Your task to perform on an android device: toggle airplane mode Image 0: 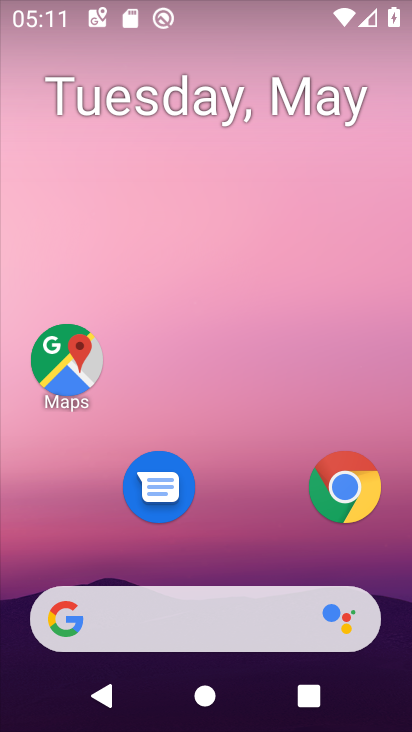
Step 0: drag from (246, 556) to (257, 136)
Your task to perform on an android device: toggle airplane mode Image 1: 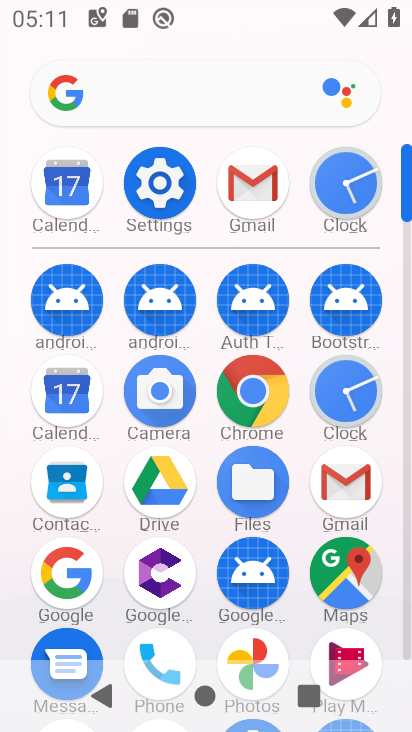
Step 1: click (163, 199)
Your task to perform on an android device: toggle airplane mode Image 2: 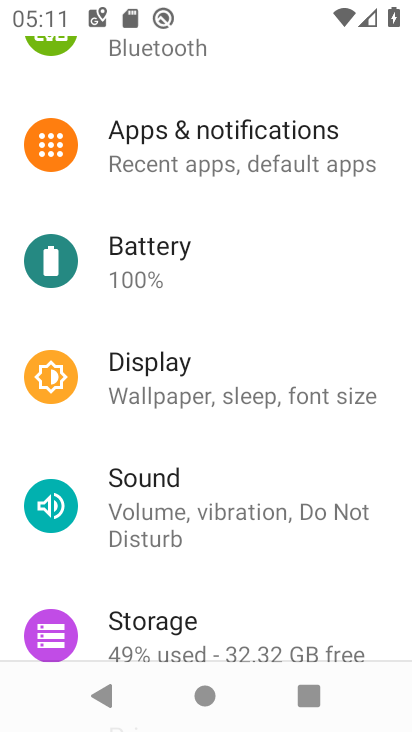
Step 2: drag from (173, 224) to (180, 586)
Your task to perform on an android device: toggle airplane mode Image 3: 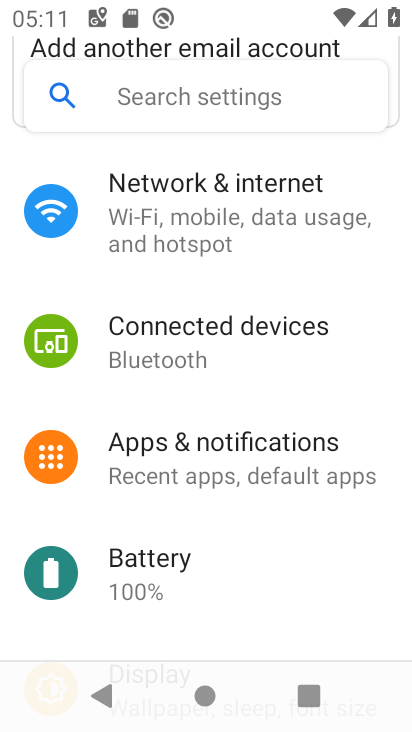
Step 3: click (216, 247)
Your task to perform on an android device: toggle airplane mode Image 4: 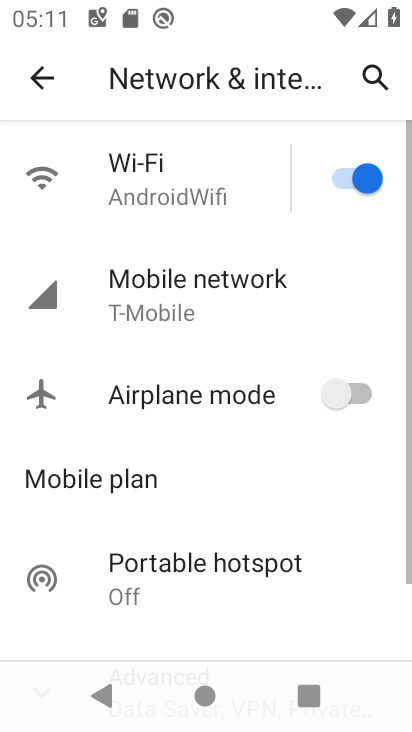
Step 4: click (303, 380)
Your task to perform on an android device: toggle airplane mode Image 5: 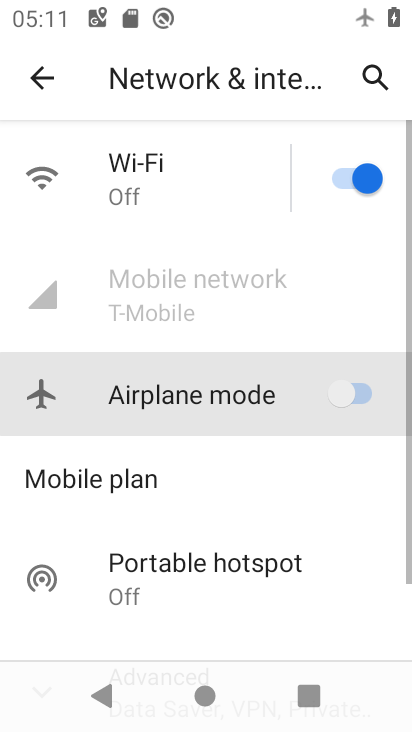
Step 5: click (303, 380)
Your task to perform on an android device: toggle airplane mode Image 6: 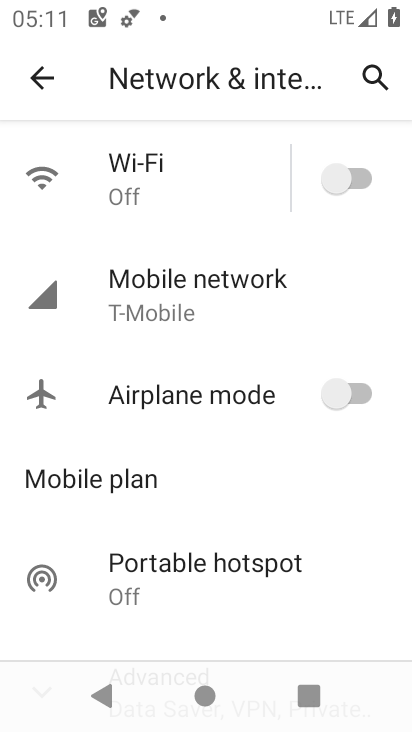
Step 6: click (352, 173)
Your task to perform on an android device: toggle airplane mode Image 7: 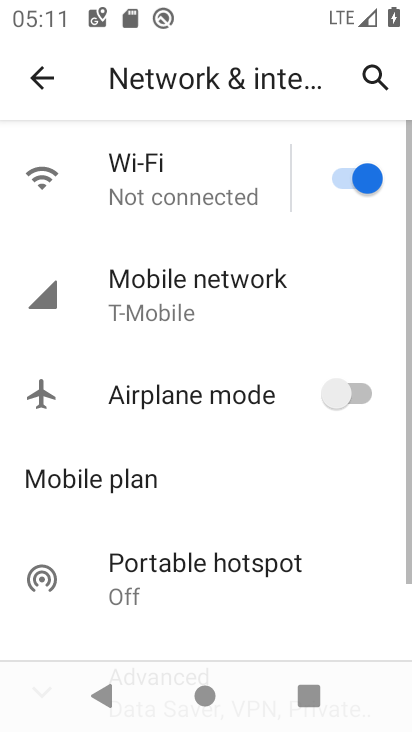
Step 7: task complete